Your task to perform on an android device: What's the weather? Image 0: 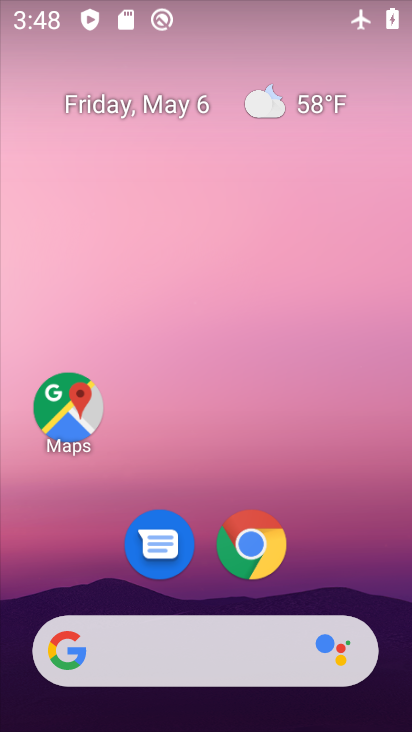
Step 0: click (269, 110)
Your task to perform on an android device: What's the weather? Image 1: 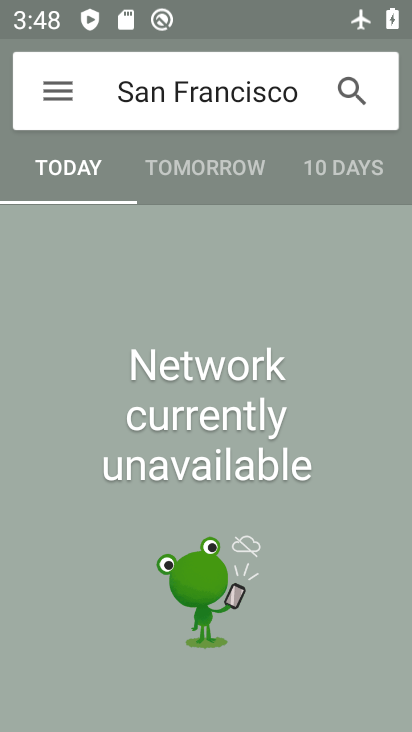
Step 1: task complete